Your task to perform on an android device: What's the weather going to be tomorrow? Image 0: 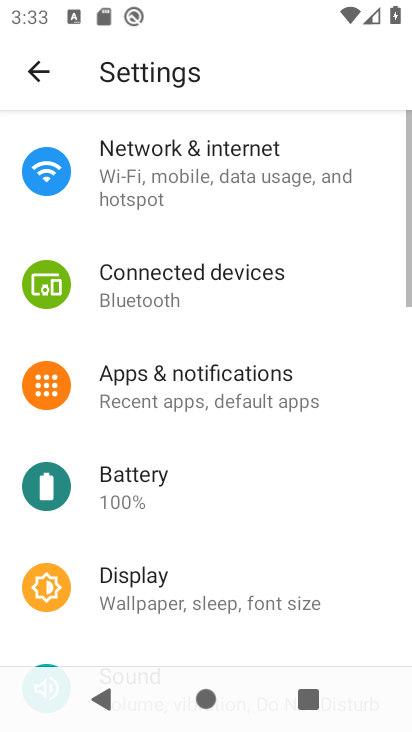
Step 0: press home button
Your task to perform on an android device: What's the weather going to be tomorrow? Image 1: 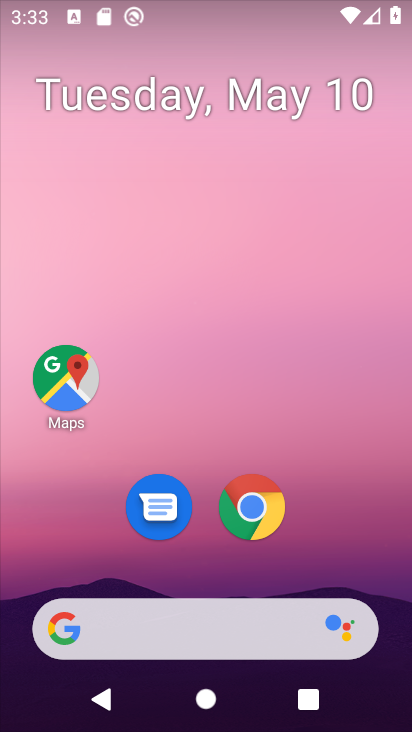
Step 1: click (261, 503)
Your task to perform on an android device: What's the weather going to be tomorrow? Image 2: 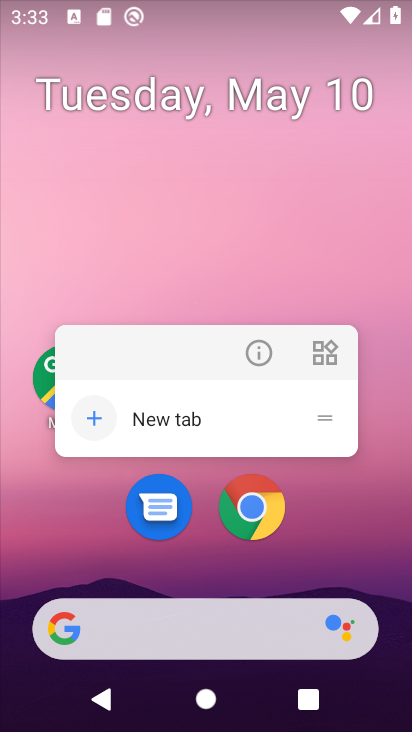
Step 2: click (246, 355)
Your task to perform on an android device: What's the weather going to be tomorrow? Image 3: 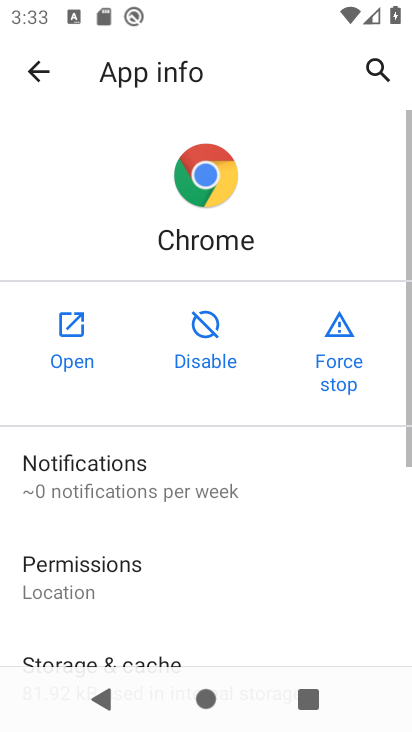
Step 3: click (76, 355)
Your task to perform on an android device: What's the weather going to be tomorrow? Image 4: 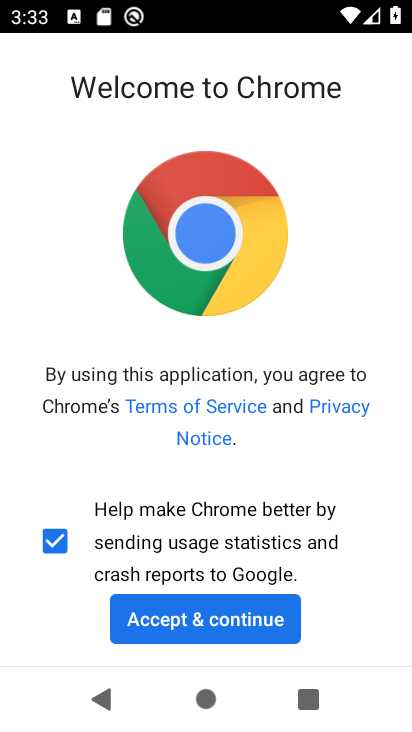
Step 4: click (188, 622)
Your task to perform on an android device: What's the weather going to be tomorrow? Image 5: 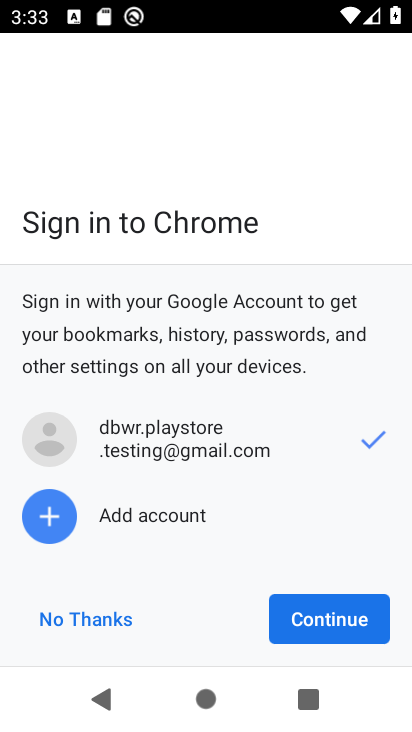
Step 5: click (316, 610)
Your task to perform on an android device: What's the weather going to be tomorrow? Image 6: 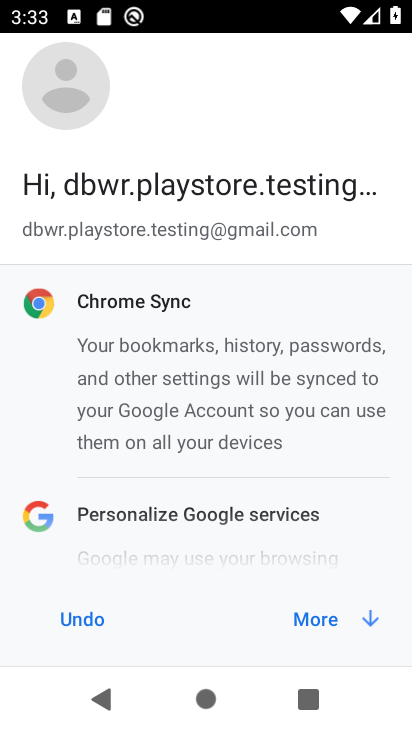
Step 6: click (292, 614)
Your task to perform on an android device: What's the weather going to be tomorrow? Image 7: 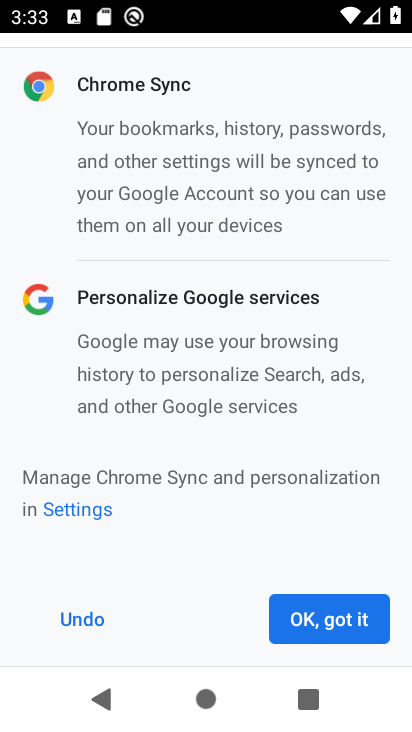
Step 7: click (303, 616)
Your task to perform on an android device: What's the weather going to be tomorrow? Image 8: 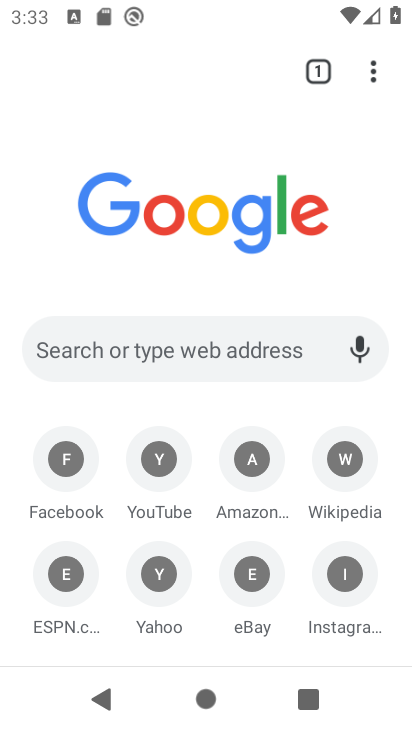
Step 8: click (135, 78)
Your task to perform on an android device: What's the weather going to be tomorrow? Image 9: 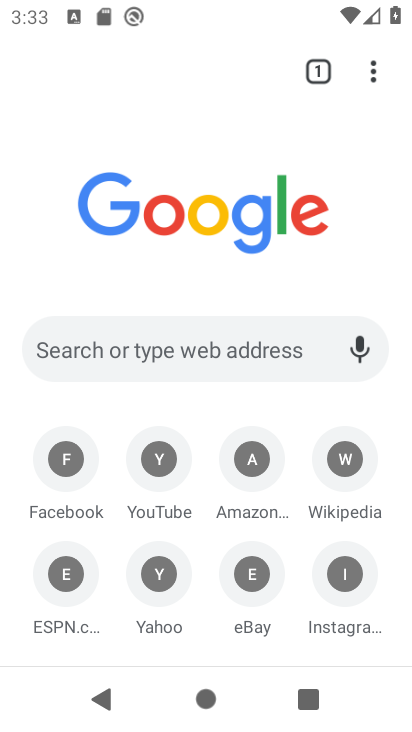
Step 9: click (115, 343)
Your task to perform on an android device: What's the weather going to be tomorrow? Image 10: 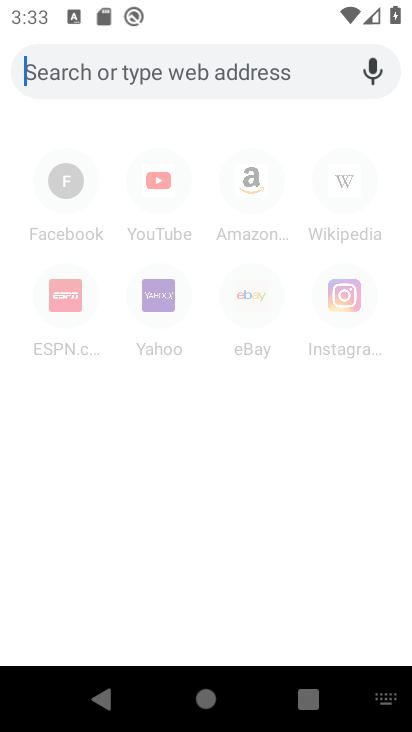
Step 10: type "What's the weather going to be tomorrow?"
Your task to perform on an android device: What's the weather going to be tomorrow? Image 11: 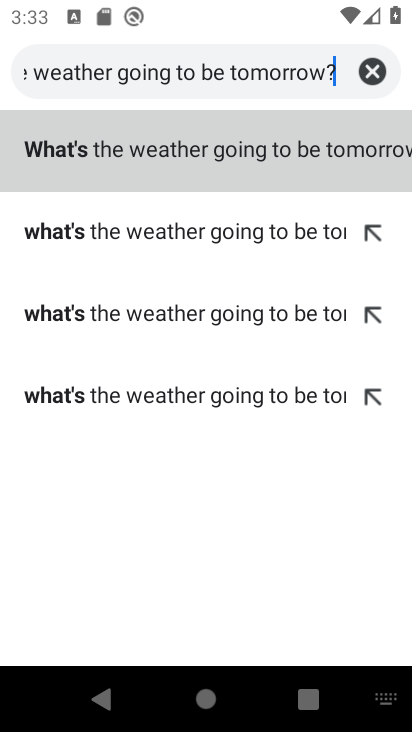
Step 11: click (234, 168)
Your task to perform on an android device: What's the weather going to be tomorrow? Image 12: 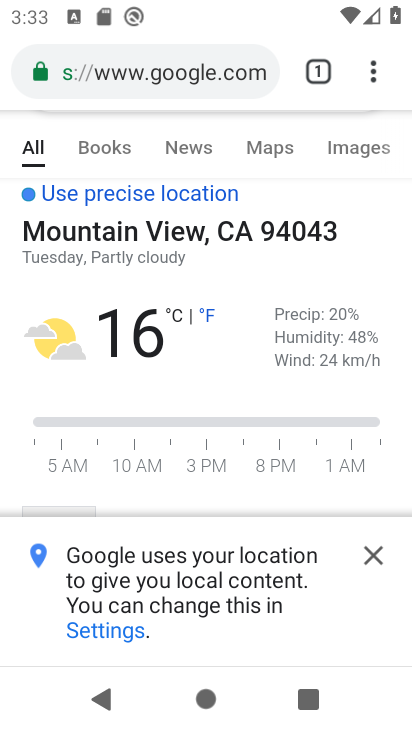
Step 12: task complete